Your task to perform on an android device: allow notifications from all sites in the chrome app Image 0: 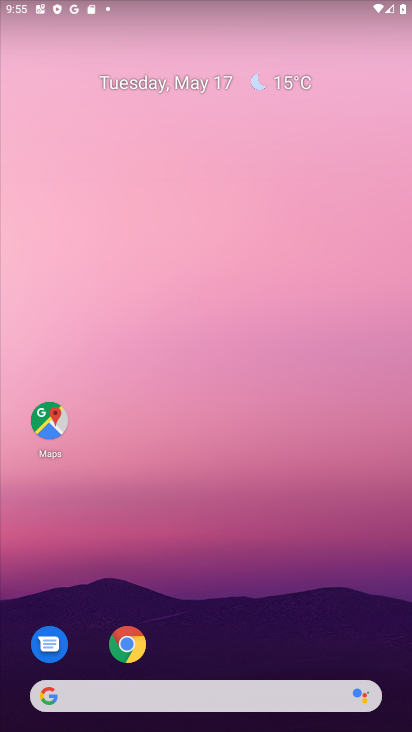
Step 0: click (128, 638)
Your task to perform on an android device: allow notifications from all sites in the chrome app Image 1: 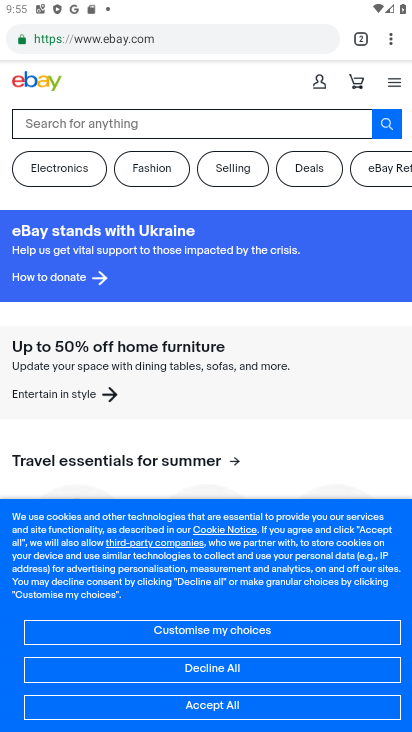
Step 1: click (398, 34)
Your task to perform on an android device: allow notifications from all sites in the chrome app Image 2: 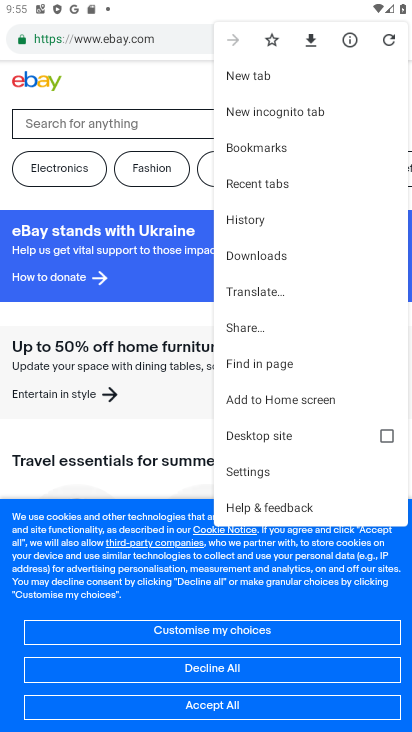
Step 2: click (237, 468)
Your task to perform on an android device: allow notifications from all sites in the chrome app Image 3: 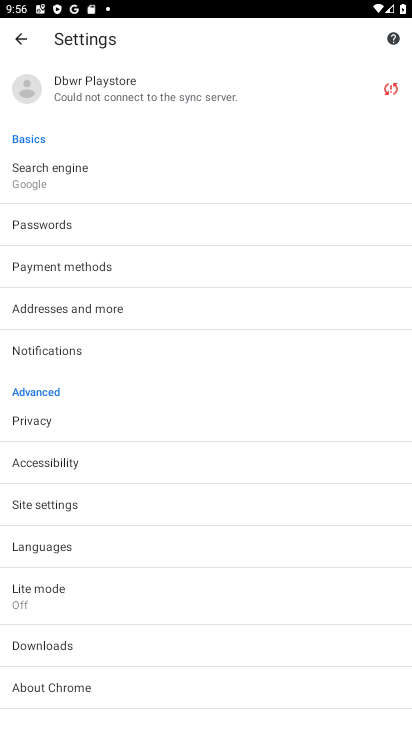
Step 3: click (66, 353)
Your task to perform on an android device: allow notifications from all sites in the chrome app Image 4: 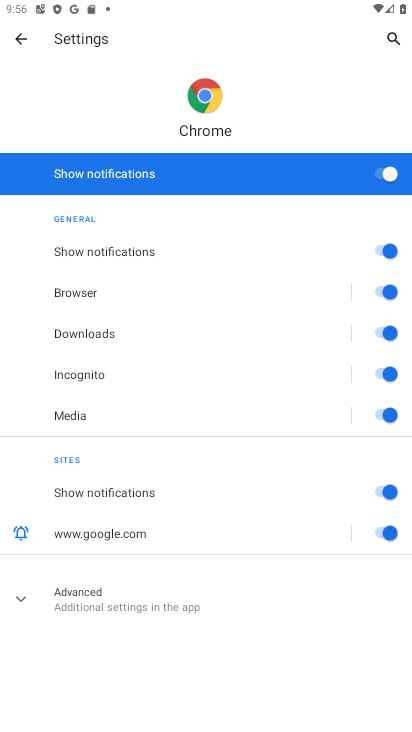
Step 4: task complete